Your task to perform on an android device: Open Maps and search for coffee Image 0: 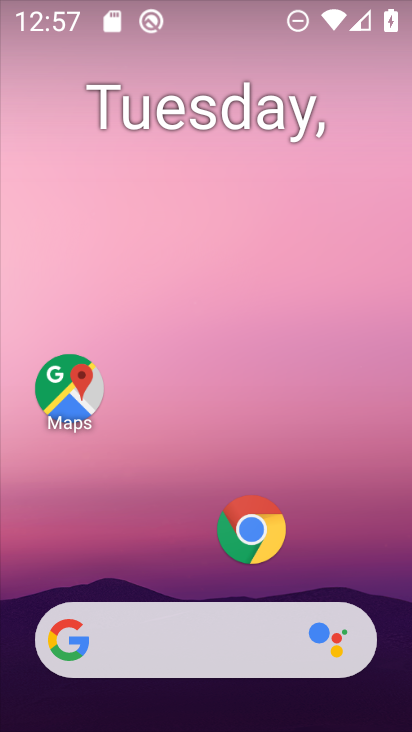
Step 0: drag from (271, 691) to (327, 38)
Your task to perform on an android device: Open Maps and search for coffee Image 1: 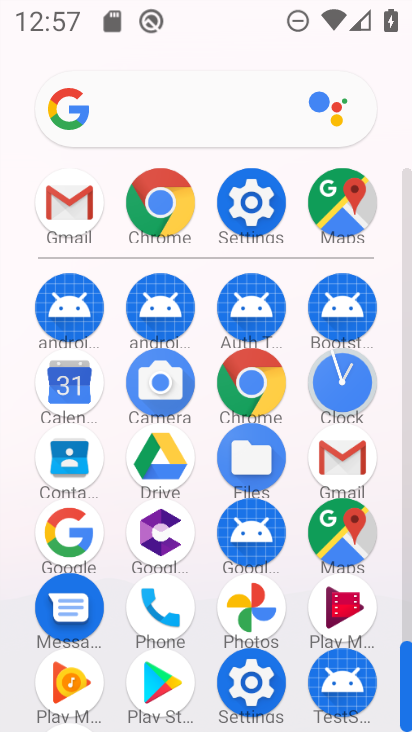
Step 1: click (368, 193)
Your task to perform on an android device: Open Maps and search for coffee Image 2: 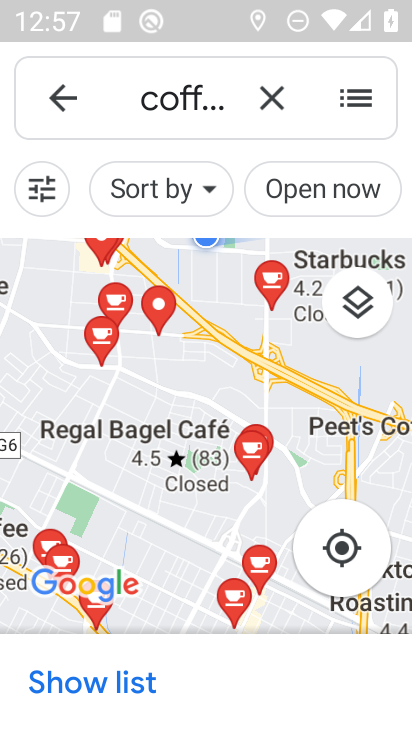
Step 2: click (212, 104)
Your task to perform on an android device: Open Maps and search for coffee Image 3: 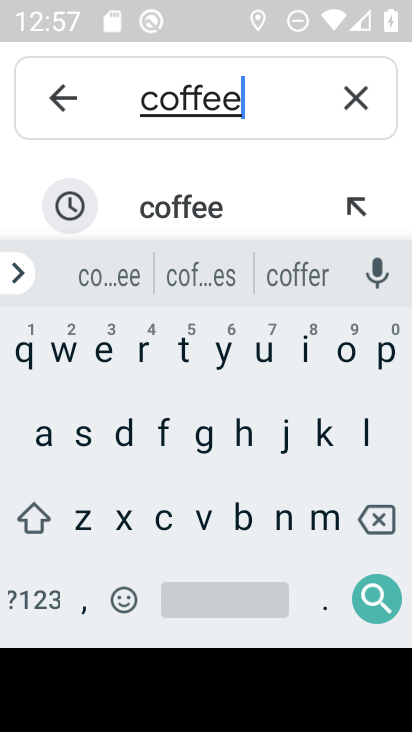
Step 3: click (381, 584)
Your task to perform on an android device: Open Maps and search for coffee Image 4: 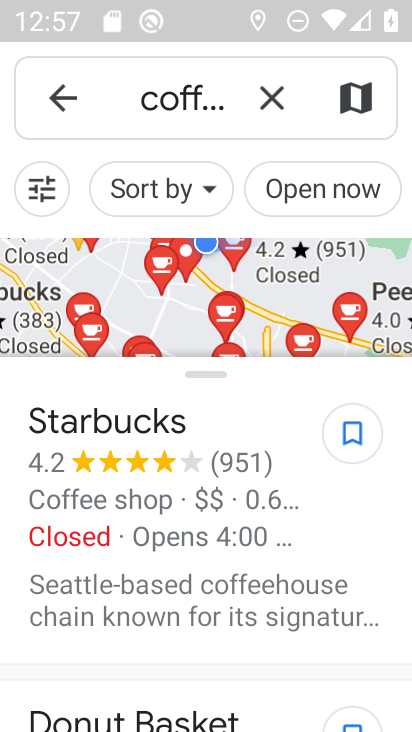
Step 4: task complete